Your task to perform on an android device: open app "Nova Launcher" (install if not already installed), go to login, and select forgot password Image 0: 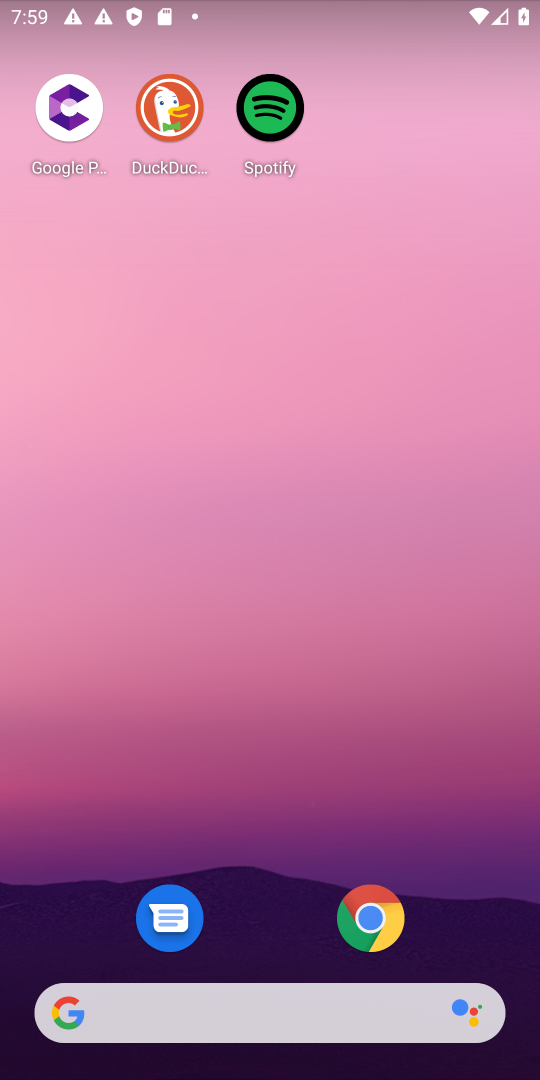
Step 0: press home button
Your task to perform on an android device: open app "Nova Launcher" (install if not already installed), go to login, and select forgot password Image 1: 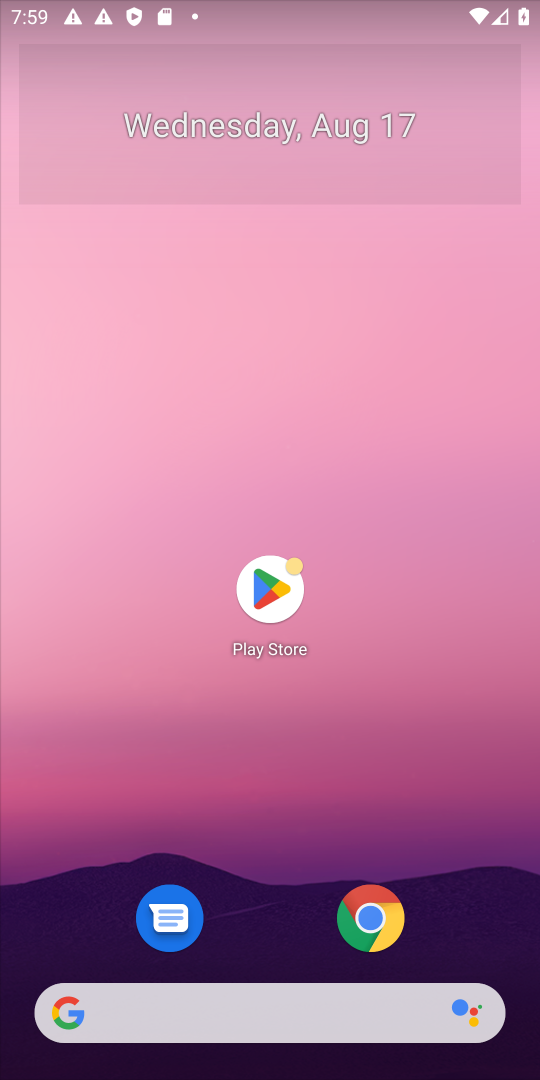
Step 1: click (270, 586)
Your task to perform on an android device: open app "Nova Launcher" (install if not already installed), go to login, and select forgot password Image 2: 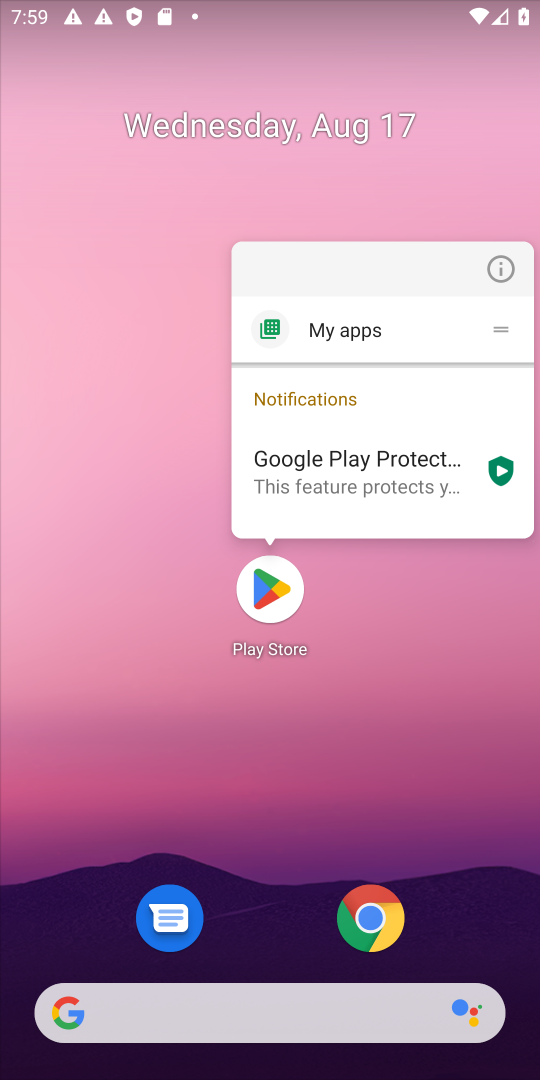
Step 2: click (270, 589)
Your task to perform on an android device: open app "Nova Launcher" (install if not already installed), go to login, and select forgot password Image 3: 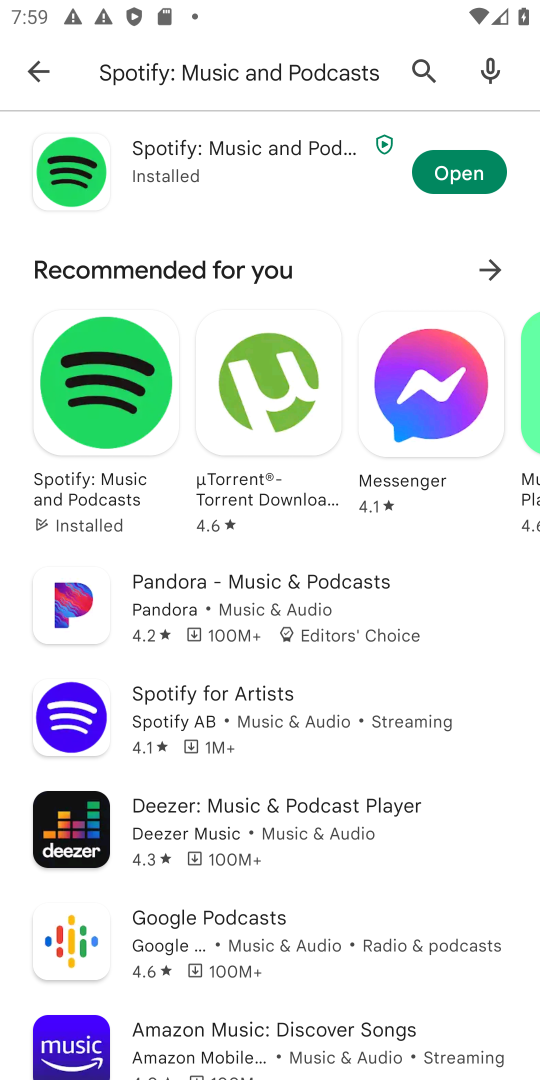
Step 3: click (416, 69)
Your task to perform on an android device: open app "Nova Launcher" (install if not already installed), go to login, and select forgot password Image 4: 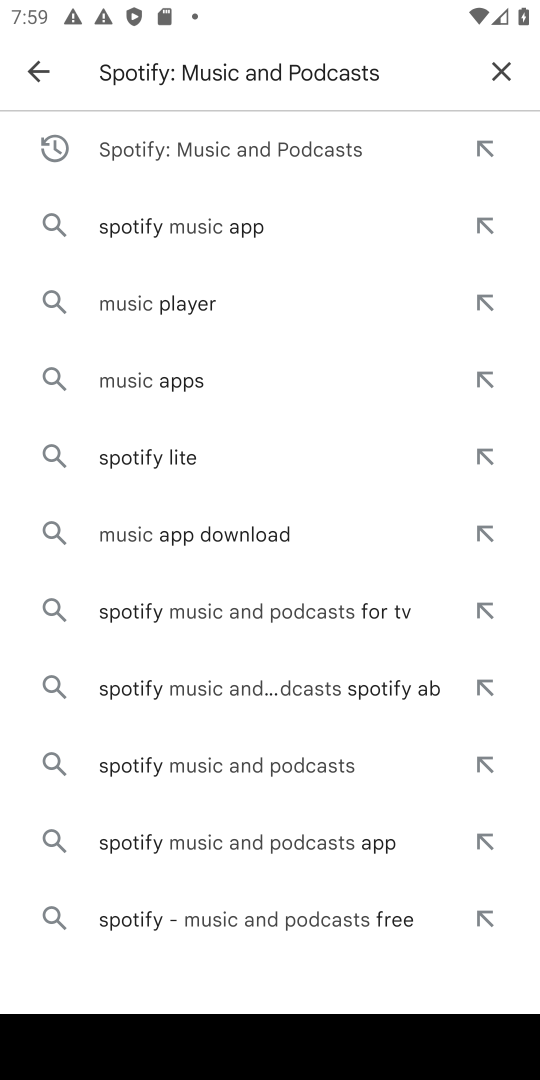
Step 4: click (501, 62)
Your task to perform on an android device: open app "Nova Launcher" (install if not already installed), go to login, and select forgot password Image 5: 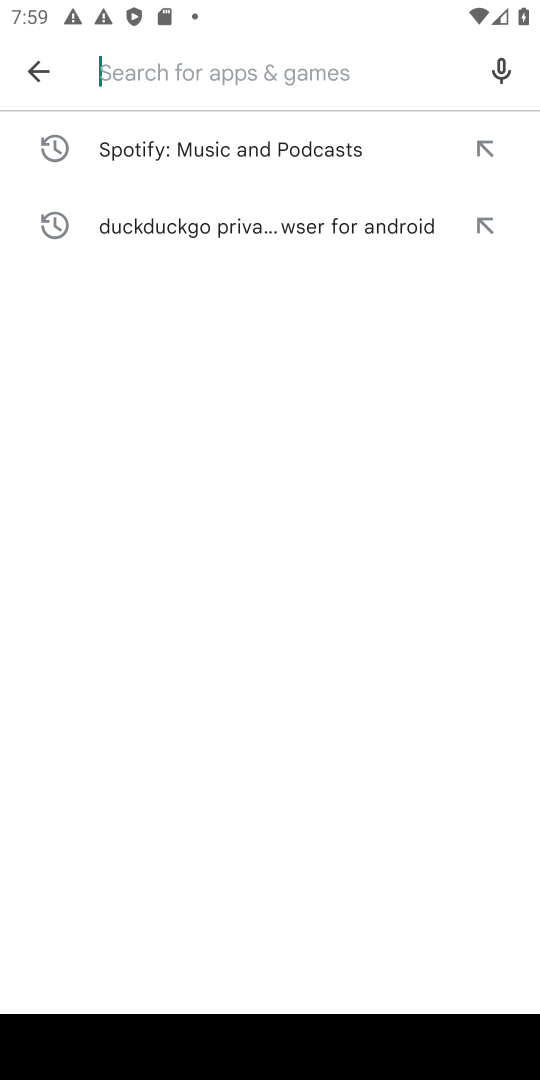
Step 5: type "Nova Launcher"
Your task to perform on an android device: open app "Nova Launcher" (install if not already installed), go to login, and select forgot password Image 6: 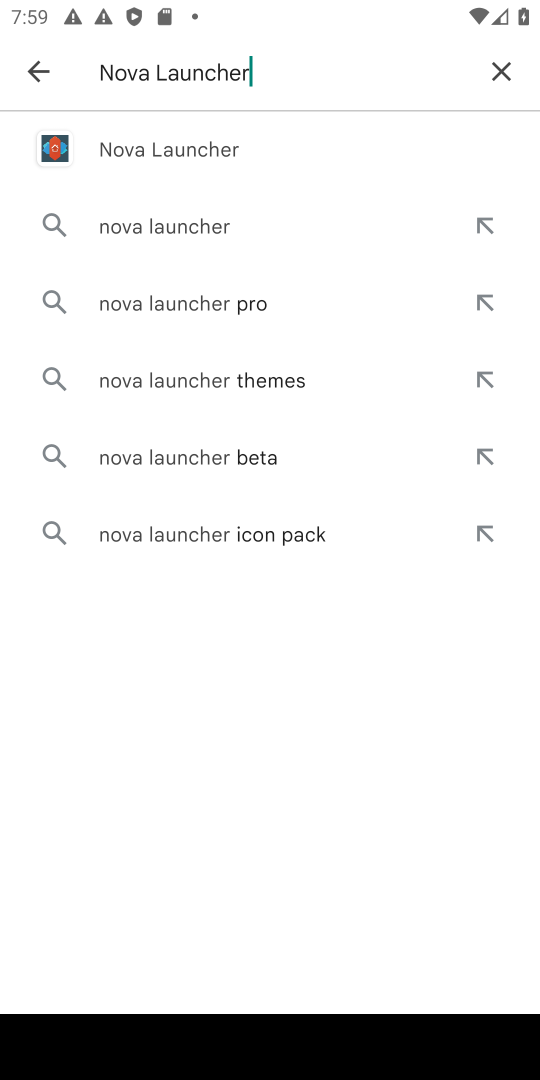
Step 6: click (161, 144)
Your task to perform on an android device: open app "Nova Launcher" (install if not already installed), go to login, and select forgot password Image 7: 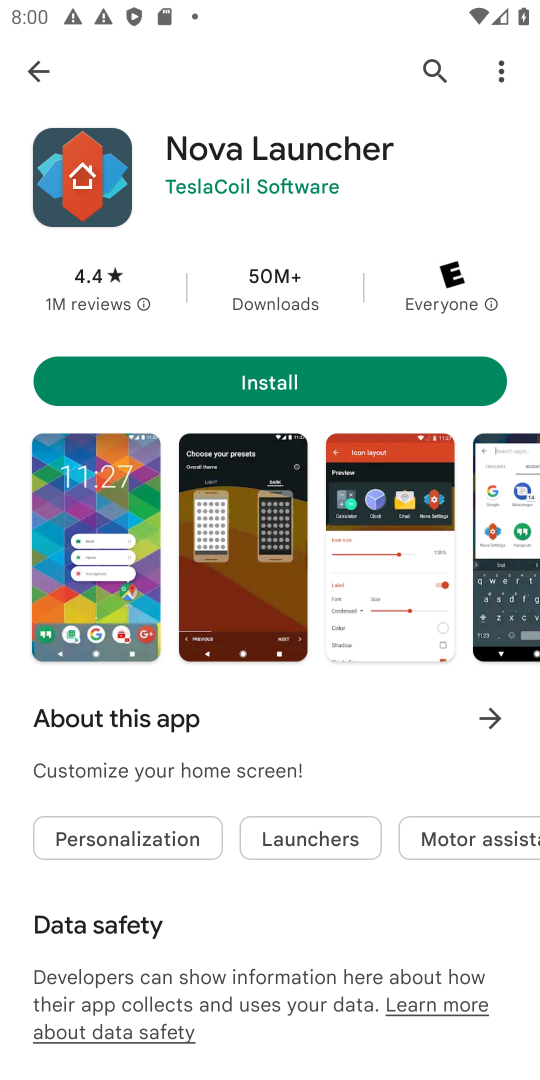
Step 7: click (273, 381)
Your task to perform on an android device: open app "Nova Launcher" (install if not already installed), go to login, and select forgot password Image 8: 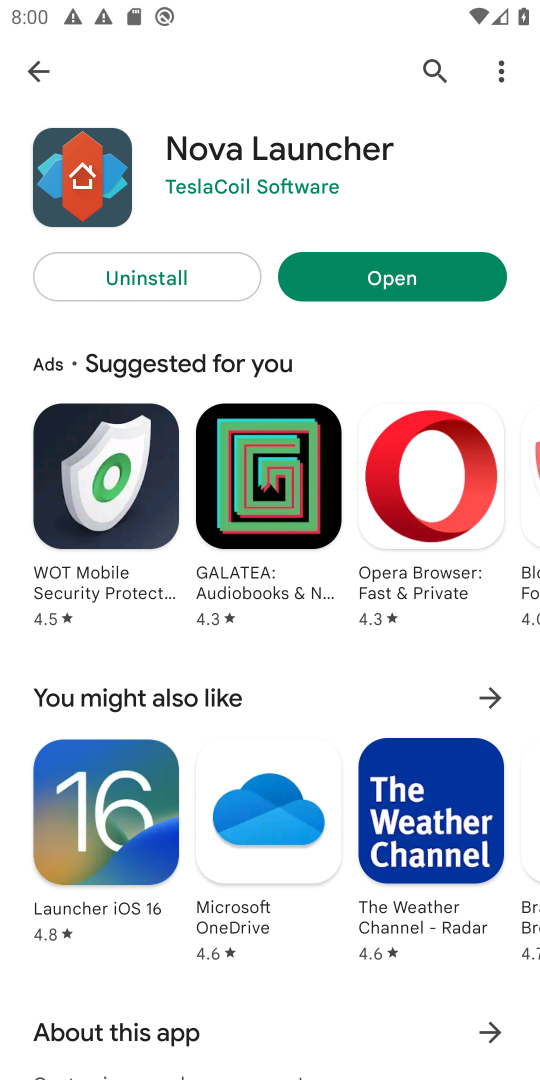
Step 8: click (400, 275)
Your task to perform on an android device: open app "Nova Launcher" (install if not already installed), go to login, and select forgot password Image 9: 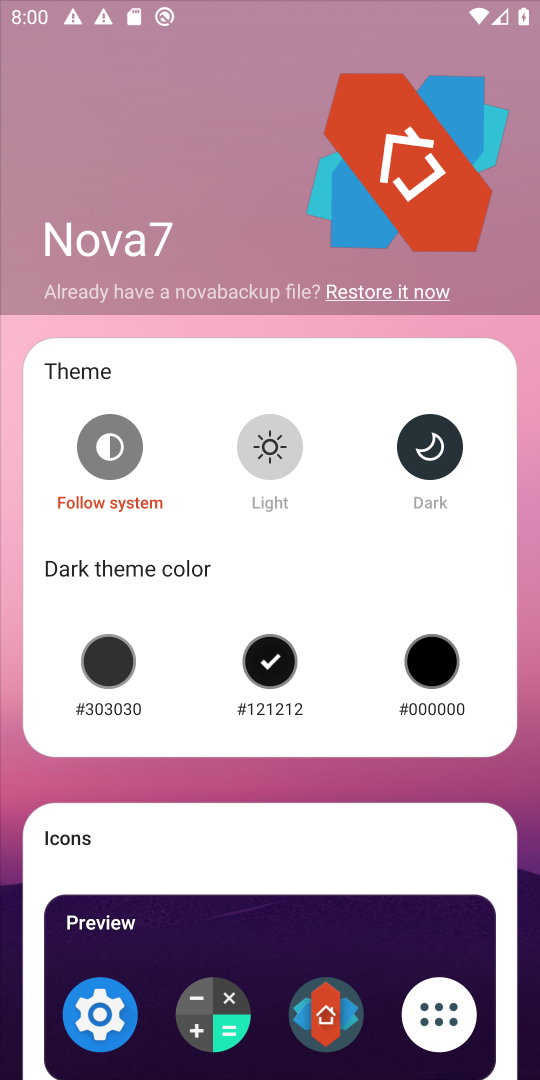
Step 9: task complete